Your task to perform on an android device: Open Google Chrome Image 0: 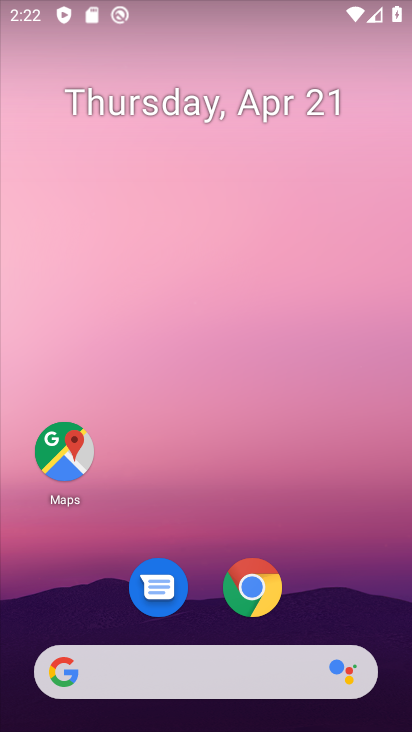
Step 0: drag from (353, 607) to (358, 96)
Your task to perform on an android device: Open Google Chrome Image 1: 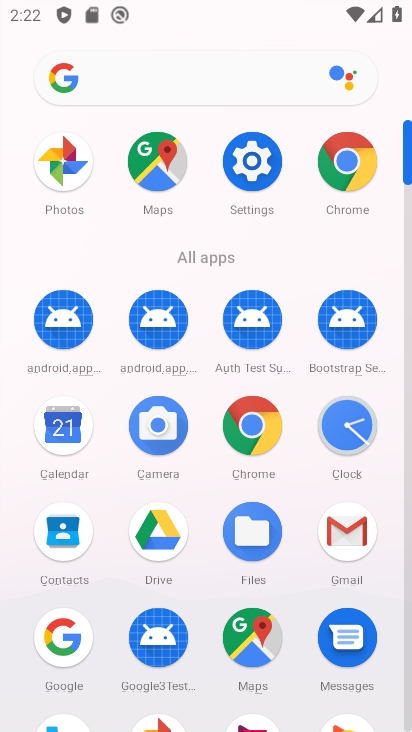
Step 1: click (238, 418)
Your task to perform on an android device: Open Google Chrome Image 2: 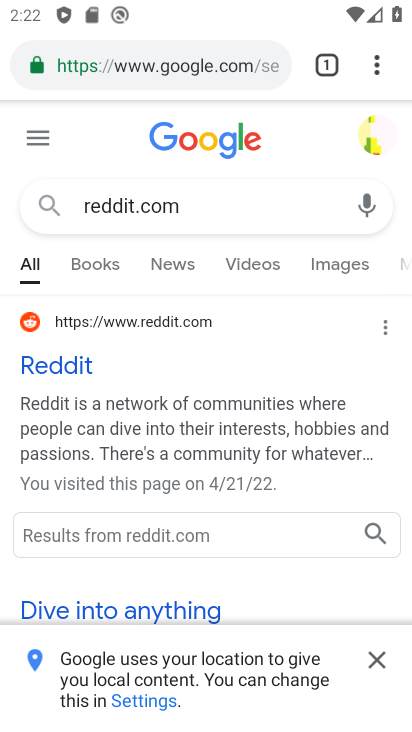
Step 2: task complete